Your task to perform on an android device: Go to notification settings Image 0: 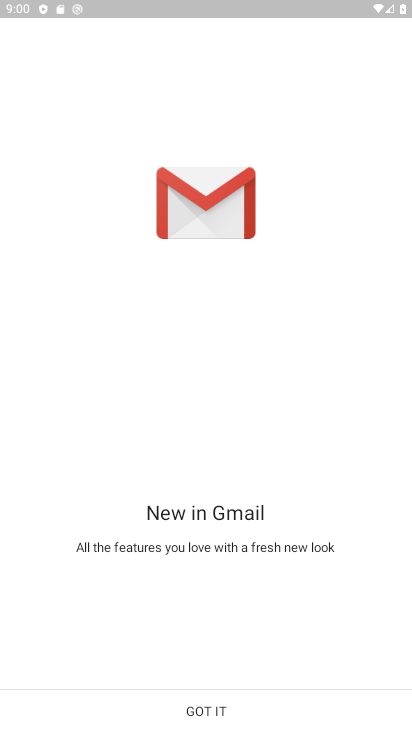
Step 0: click (172, 710)
Your task to perform on an android device: Go to notification settings Image 1: 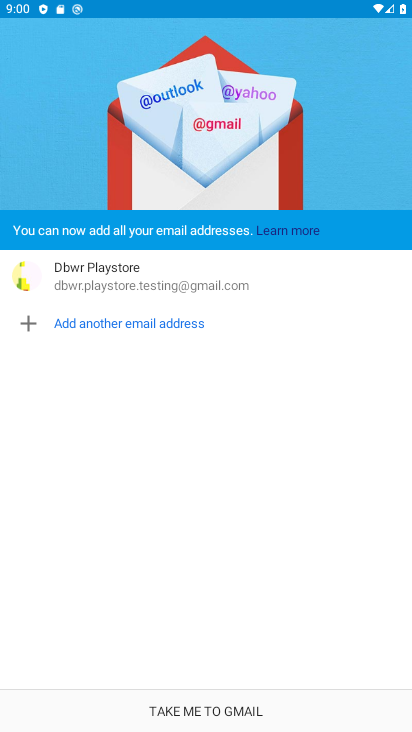
Step 1: press home button
Your task to perform on an android device: Go to notification settings Image 2: 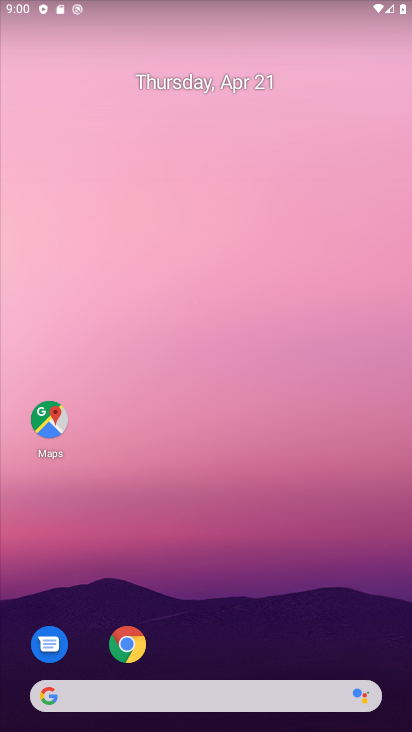
Step 2: drag from (211, 353) to (174, 0)
Your task to perform on an android device: Go to notification settings Image 3: 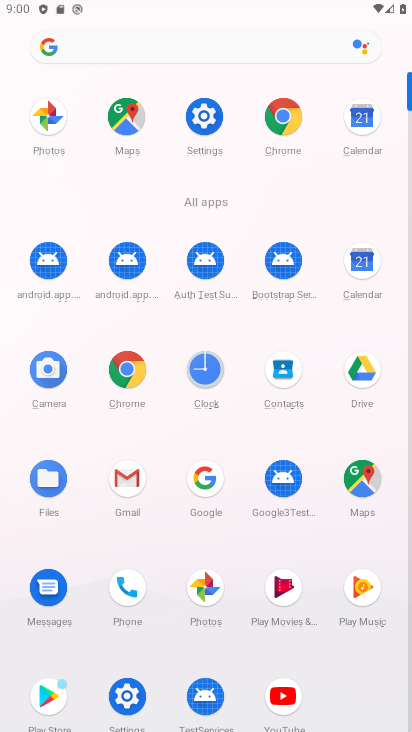
Step 3: click (208, 130)
Your task to perform on an android device: Go to notification settings Image 4: 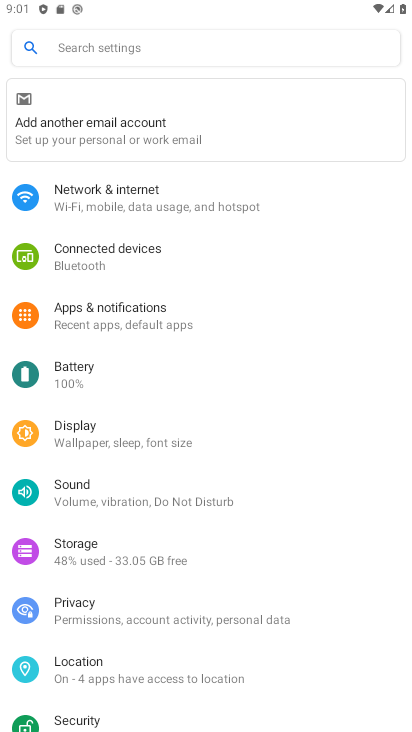
Step 4: click (143, 313)
Your task to perform on an android device: Go to notification settings Image 5: 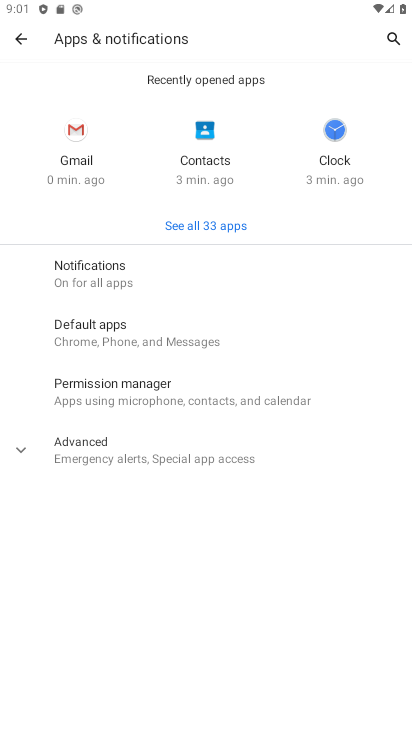
Step 5: click (116, 294)
Your task to perform on an android device: Go to notification settings Image 6: 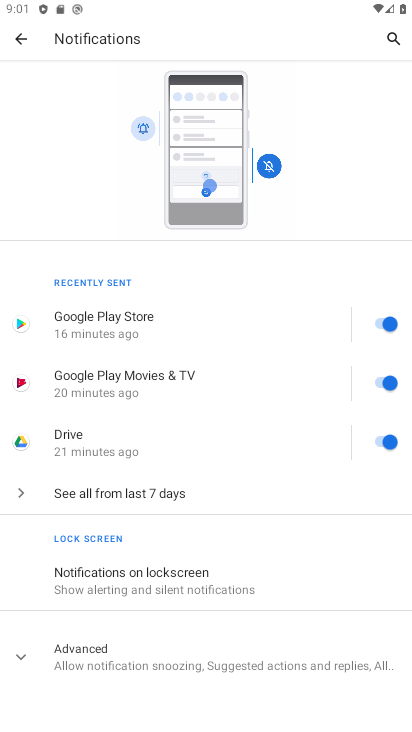
Step 6: task complete